Your task to perform on an android device: Look up the best gaming chair on Best Buy. Image 0: 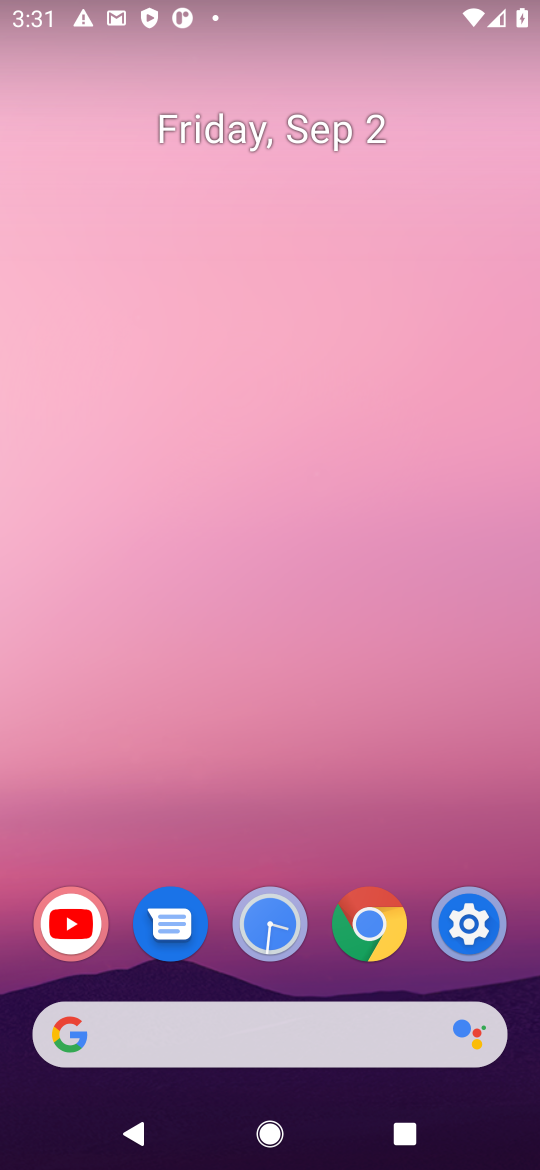
Step 0: click (392, 1026)
Your task to perform on an android device: Look up the best gaming chair on Best Buy. Image 1: 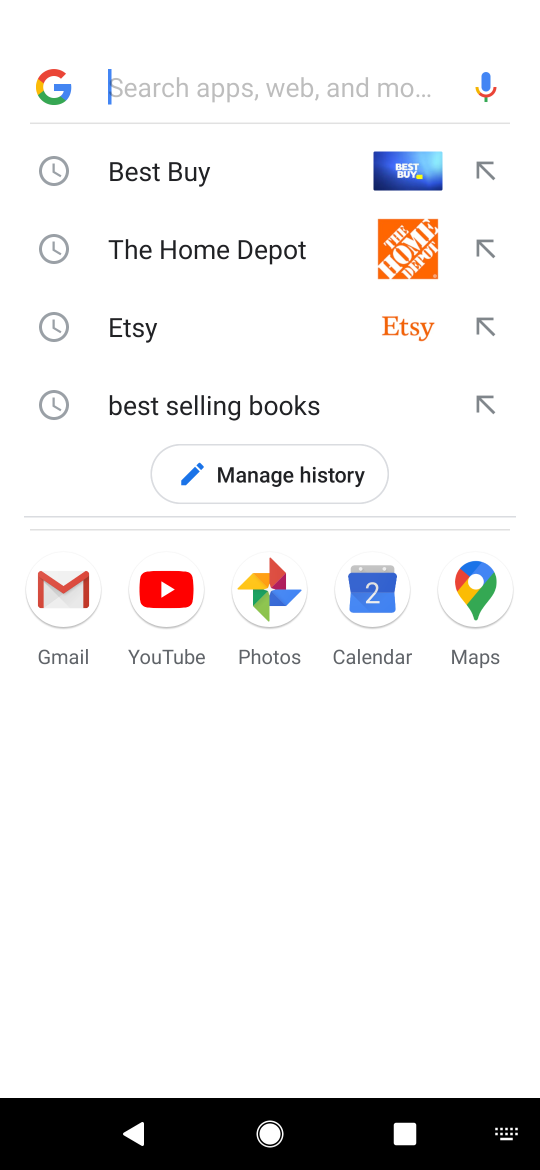
Step 1: press enter
Your task to perform on an android device: Look up the best gaming chair on Best Buy. Image 2: 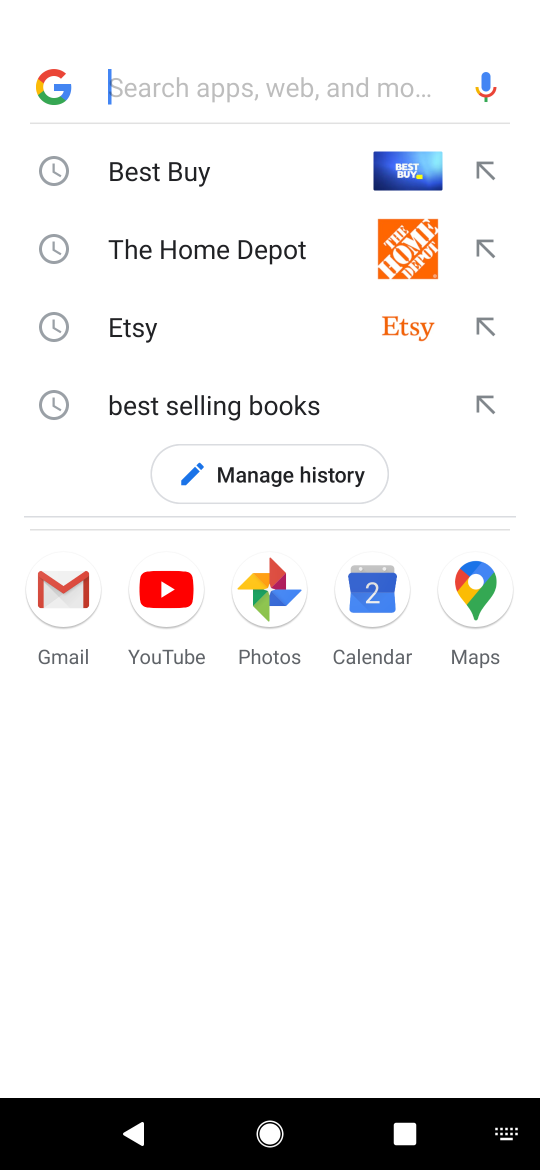
Step 2: type "best buy "
Your task to perform on an android device: Look up the best gaming chair on Best Buy. Image 3: 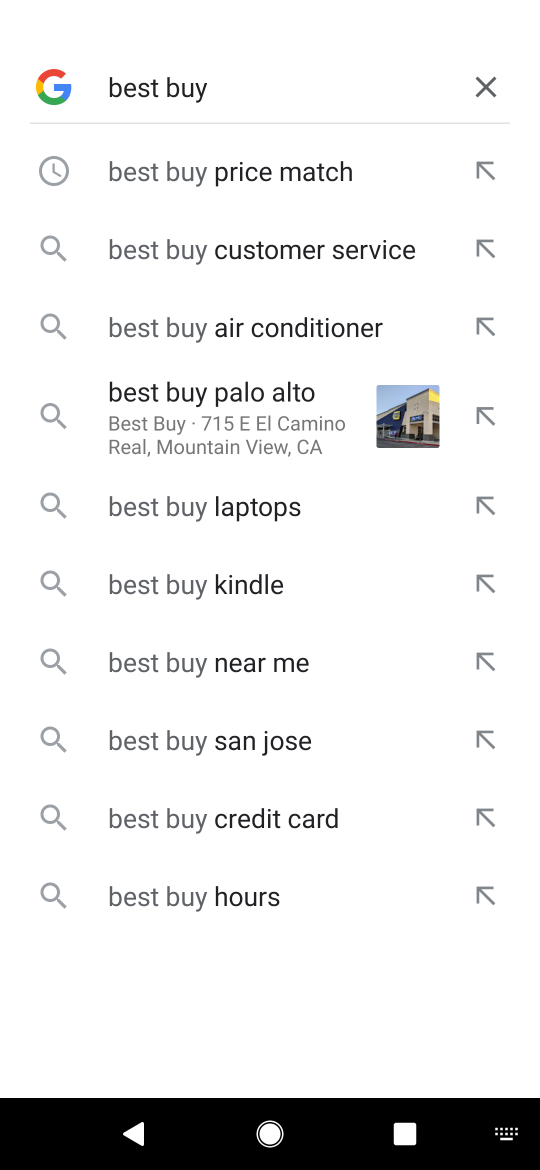
Step 3: task complete